Your task to perform on an android device: Go to ESPN.com Image 0: 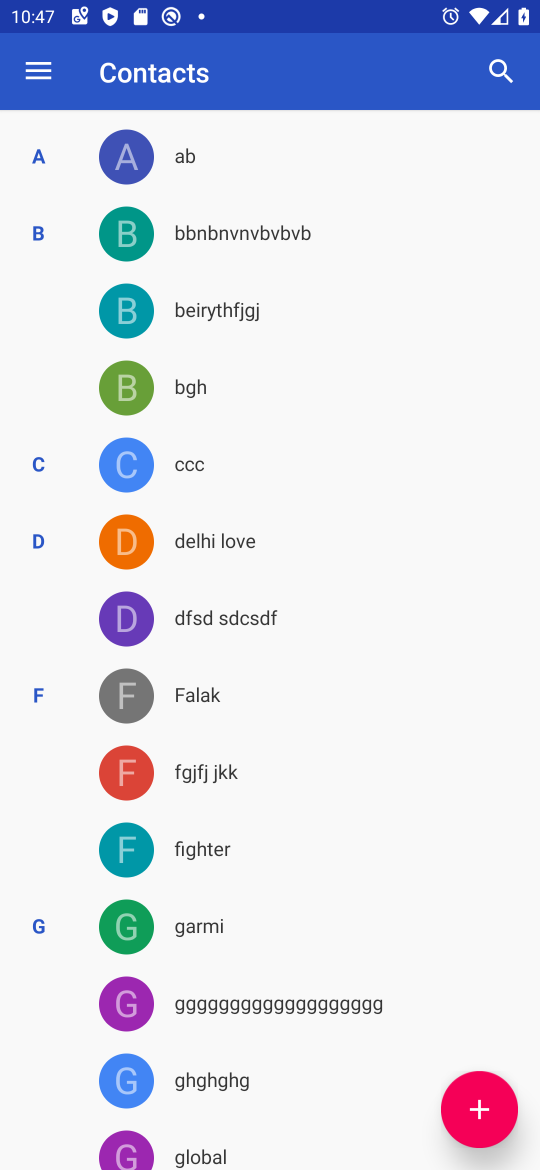
Step 0: press home button
Your task to perform on an android device: Go to ESPN.com Image 1: 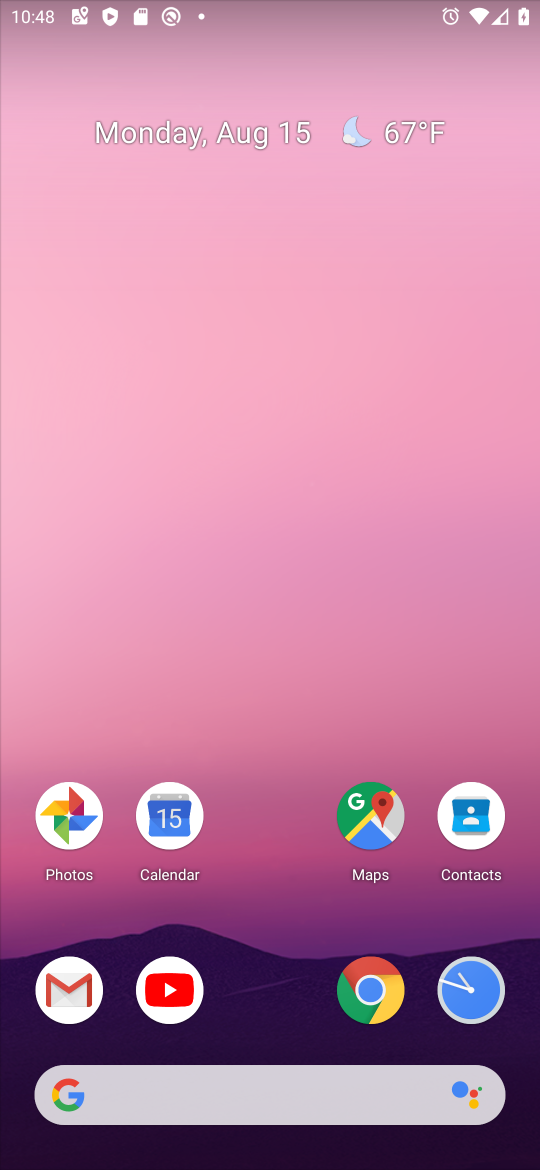
Step 1: click (370, 988)
Your task to perform on an android device: Go to ESPN.com Image 2: 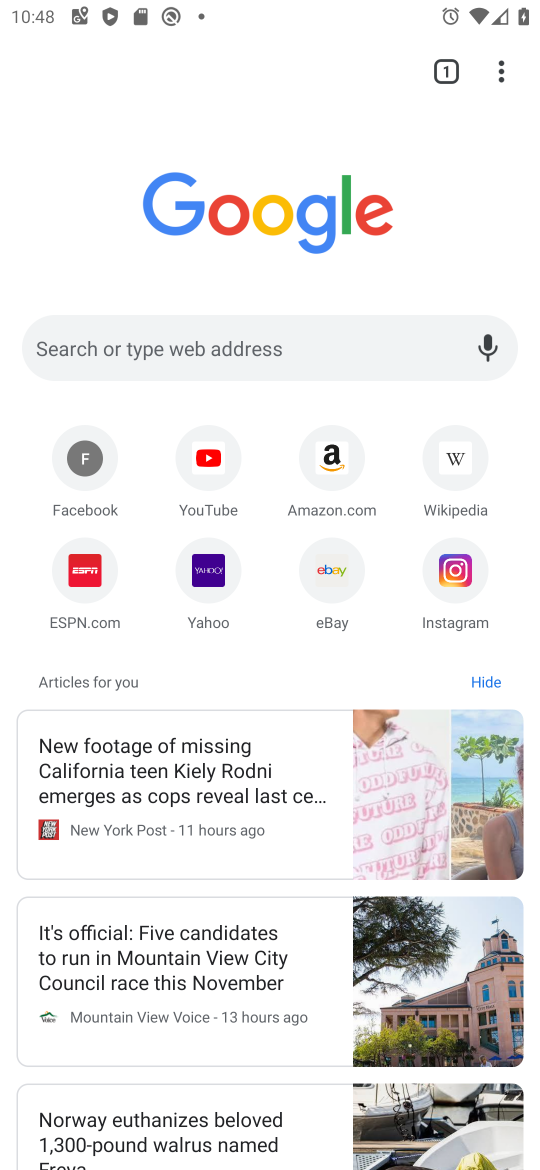
Step 2: click (80, 573)
Your task to perform on an android device: Go to ESPN.com Image 3: 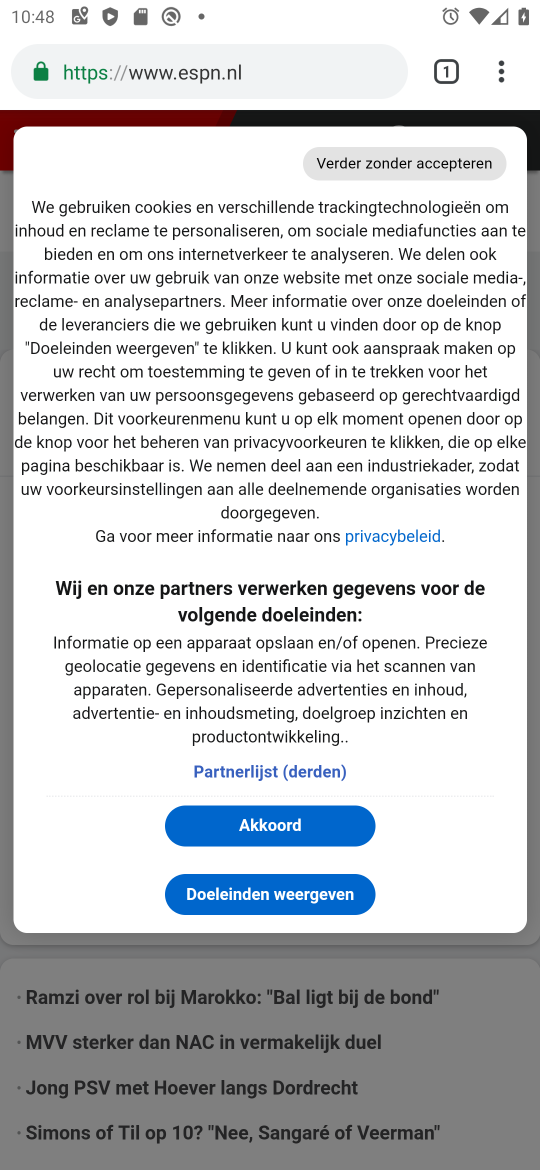
Step 3: click (231, 828)
Your task to perform on an android device: Go to ESPN.com Image 4: 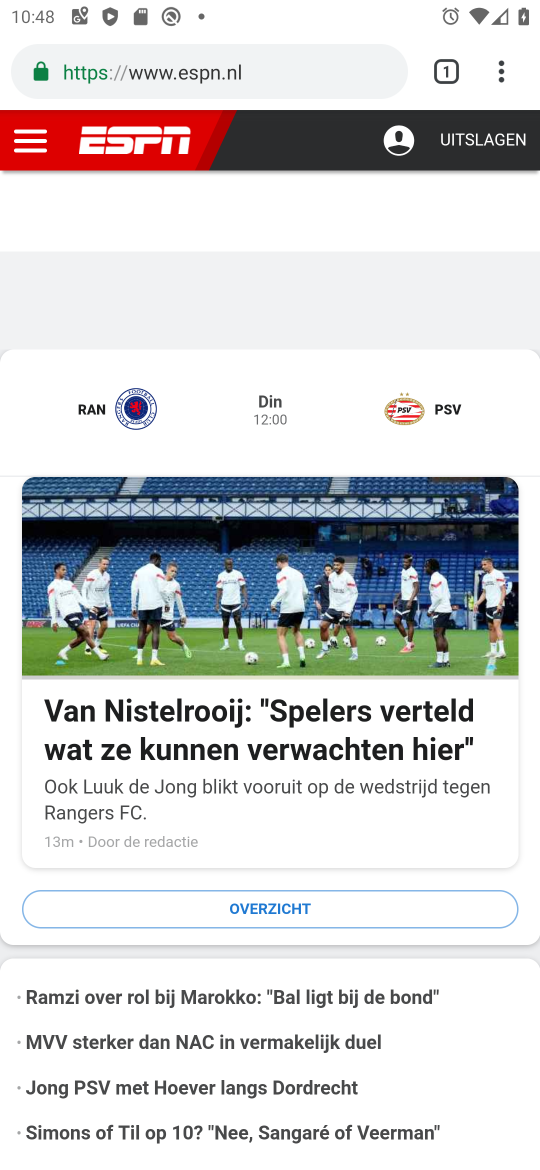
Step 4: task complete